Your task to perform on an android device: Open my contact list Image 0: 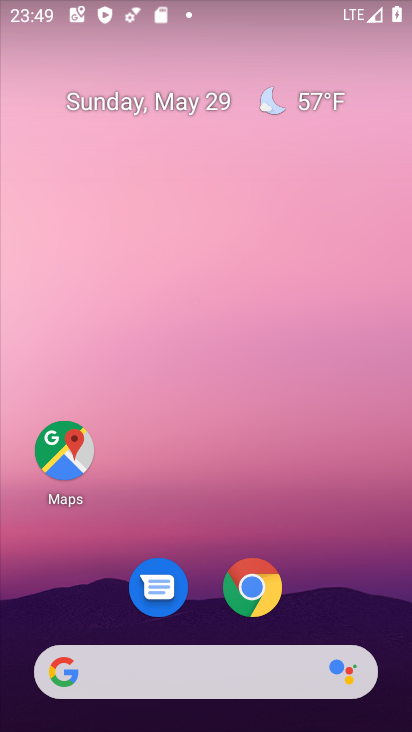
Step 0: drag from (373, 635) to (277, 185)
Your task to perform on an android device: Open my contact list Image 1: 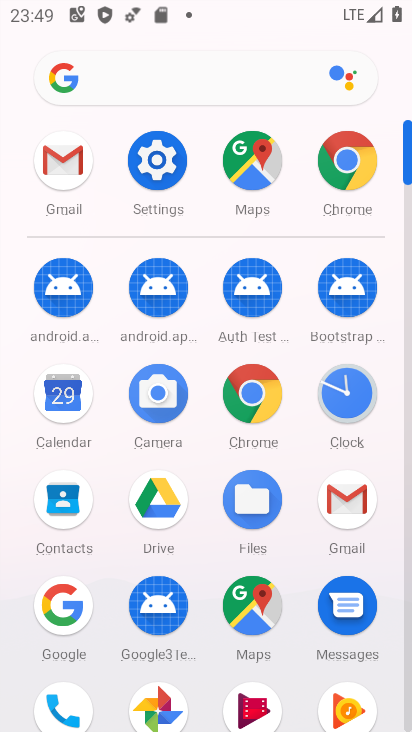
Step 1: click (63, 495)
Your task to perform on an android device: Open my contact list Image 2: 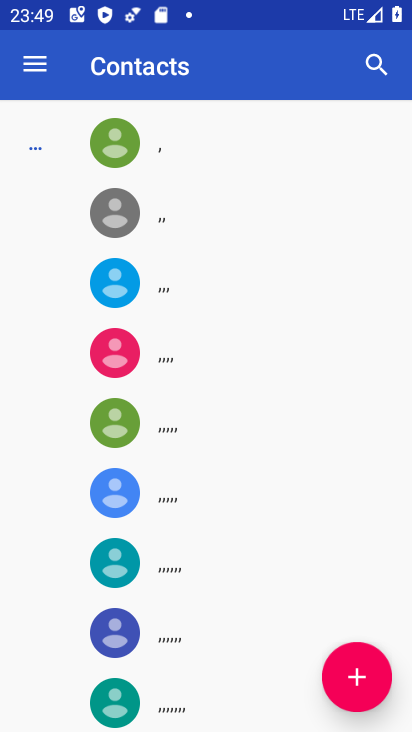
Step 2: task complete